Your task to perform on an android device: Go to calendar. Show me events next week Image 0: 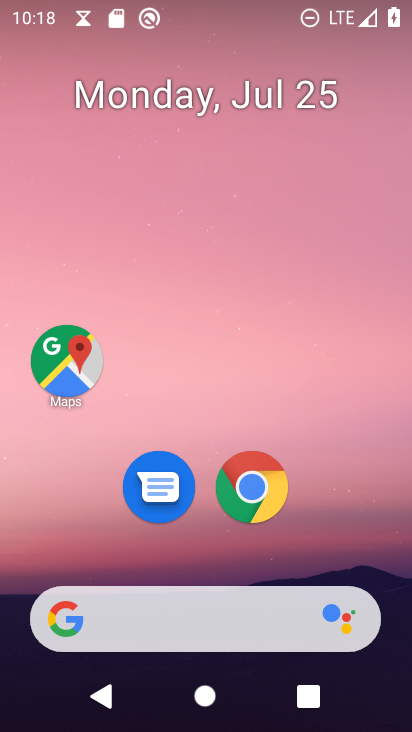
Step 0: drag from (204, 511) to (241, 42)
Your task to perform on an android device: Go to calendar. Show me events next week Image 1: 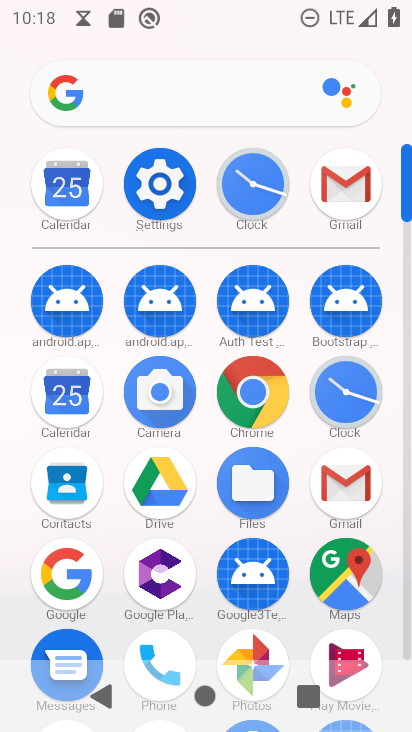
Step 1: click (59, 399)
Your task to perform on an android device: Go to calendar. Show me events next week Image 2: 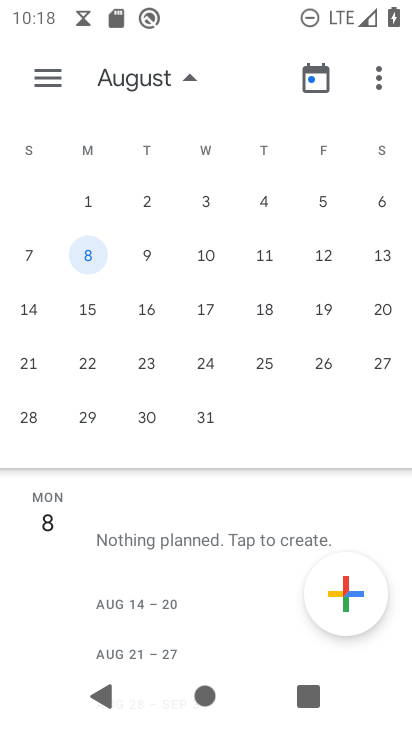
Step 2: drag from (66, 307) to (396, 314)
Your task to perform on an android device: Go to calendar. Show me events next week Image 3: 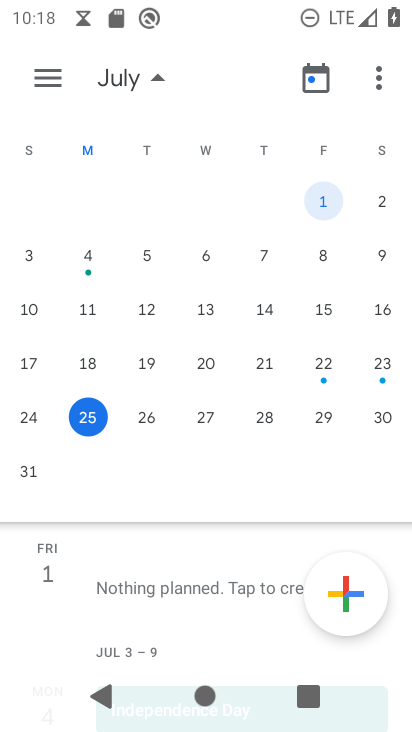
Step 3: drag from (156, 597) to (246, 295)
Your task to perform on an android device: Go to calendar. Show me events next week Image 4: 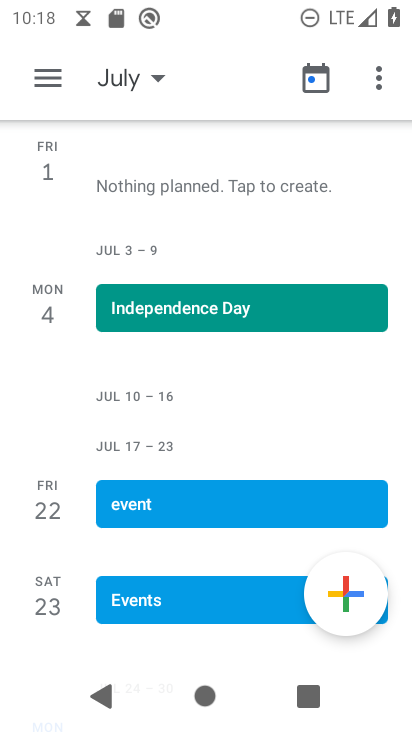
Step 4: drag from (242, 299) to (217, 731)
Your task to perform on an android device: Go to calendar. Show me events next week Image 5: 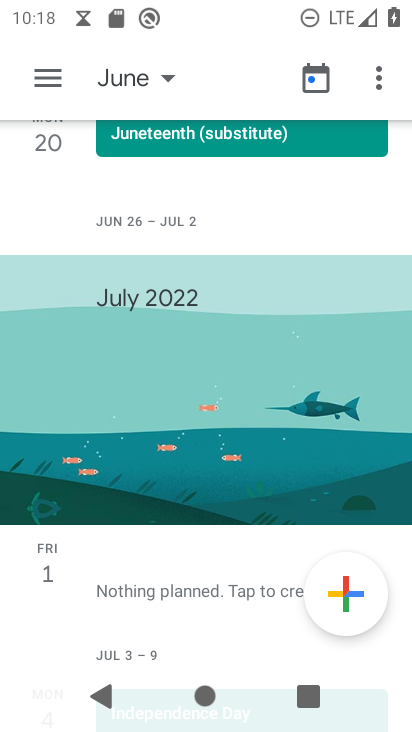
Step 5: drag from (169, 226) to (187, 561)
Your task to perform on an android device: Go to calendar. Show me events next week Image 6: 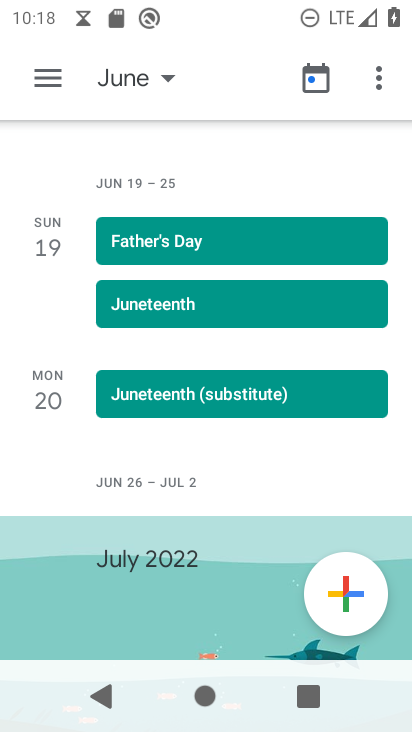
Step 6: click (119, 66)
Your task to perform on an android device: Go to calendar. Show me events next week Image 7: 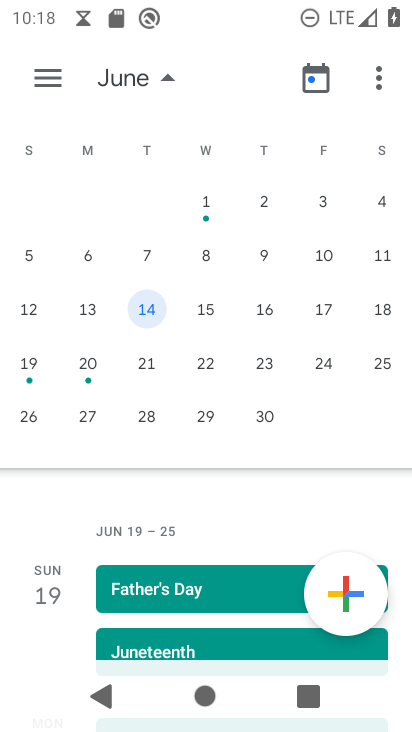
Step 7: drag from (251, 305) to (14, 304)
Your task to perform on an android device: Go to calendar. Show me events next week Image 8: 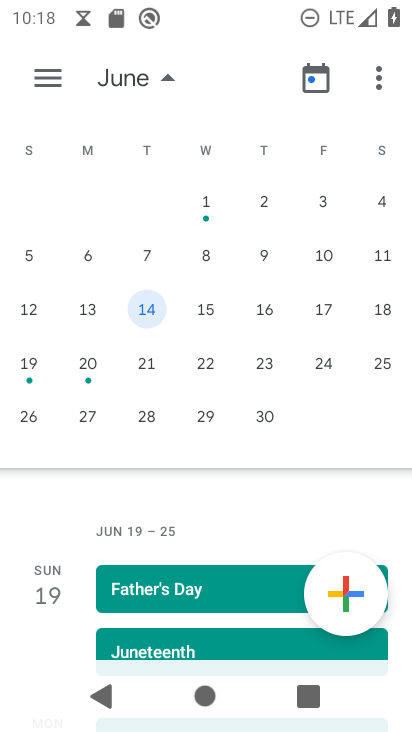
Step 8: drag from (370, 309) to (12, 310)
Your task to perform on an android device: Go to calendar. Show me events next week Image 9: 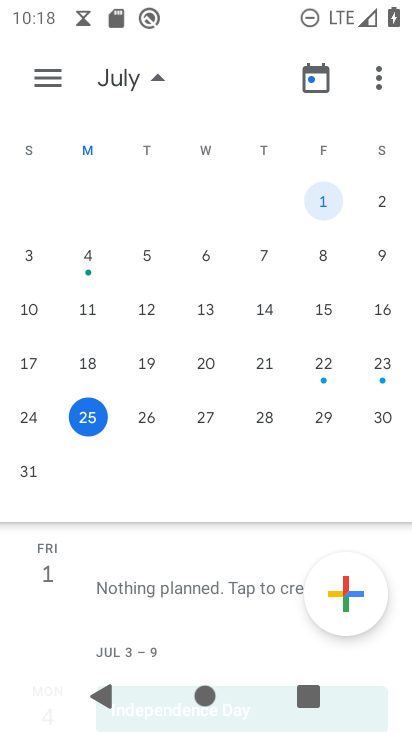
Step 9: drag from (385, 306) to (14, 372)
Your task to perform on an android device: Go to calendar. Show me events next week Image 10: 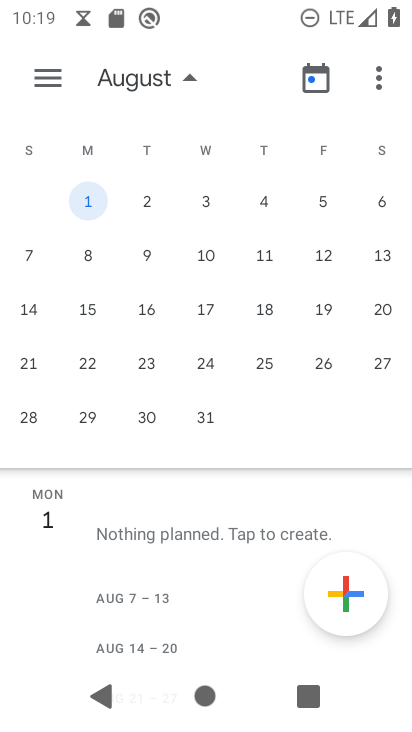
Step 10: click (84, 195)
Your task to perform on an android device: Go to calendar. Show me events next week Image 11: 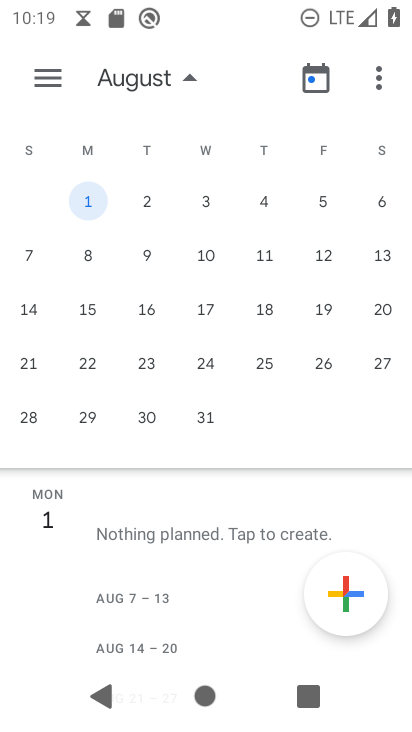
Step 11: task complete